Your task to perform on an android device: Add "dell xps" to the cart on ebay Image 0: 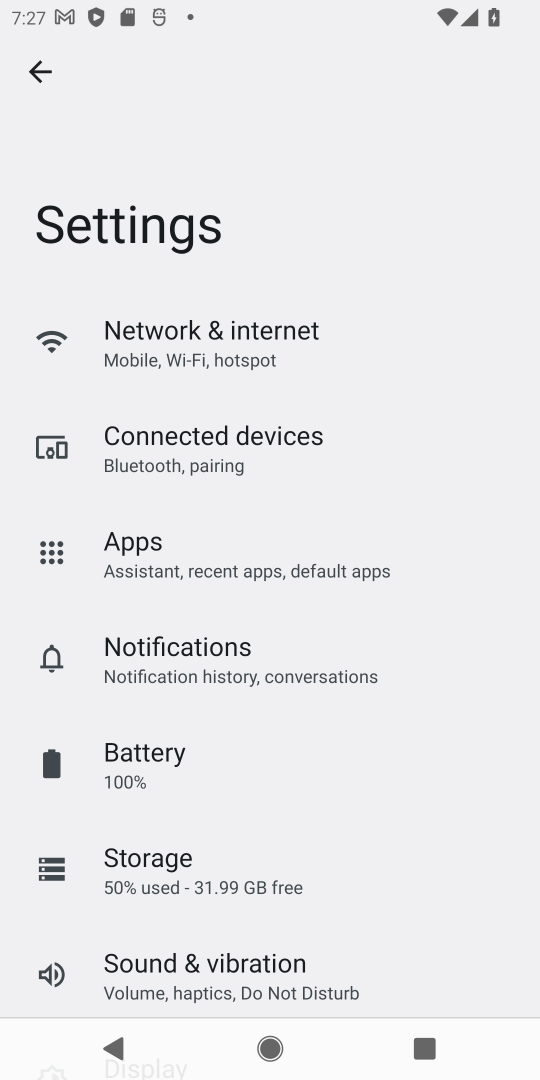
Step 0: press home button
Your task to perform on an android device: Add "dell xps" to the cart on ebay Image 1: 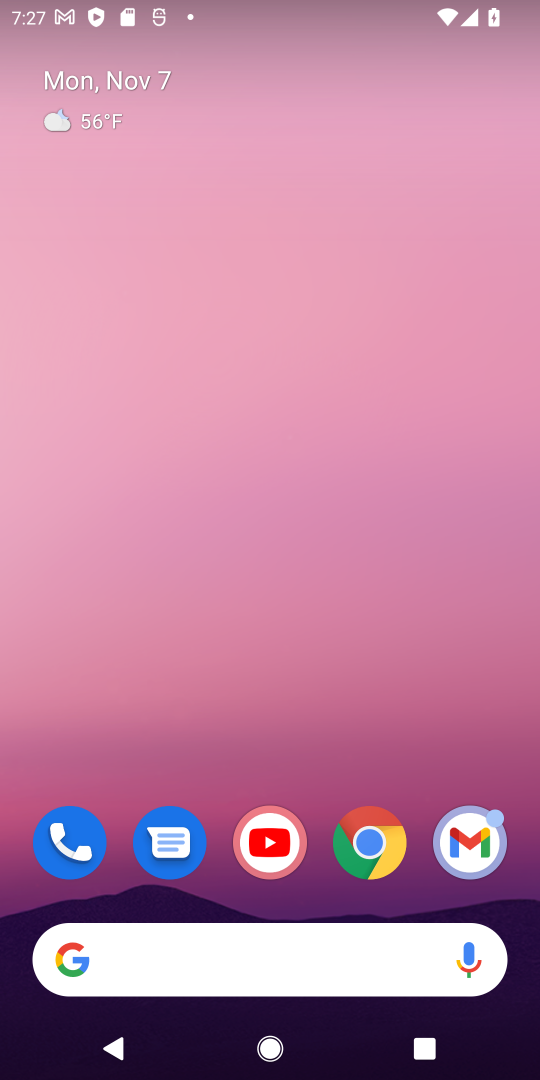
Step 1: click (364, 856)
Your task to perform on an android device: Add "dell xps" to the cart on ebay Image 2: 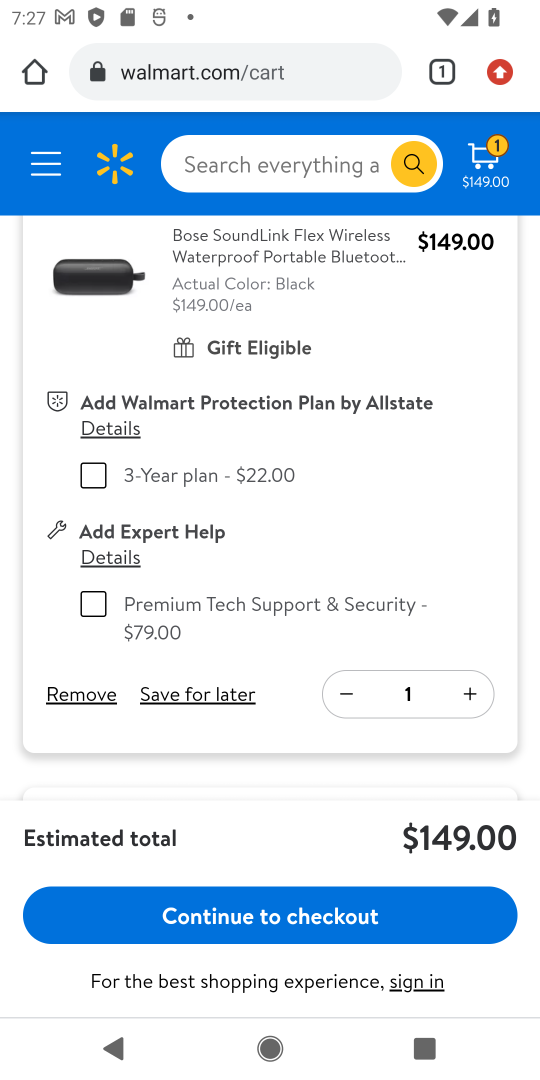
Step 2: click (278, 72)
Your task to perform on an android device: Add "dell xps" to the cart on ebay Image 3: 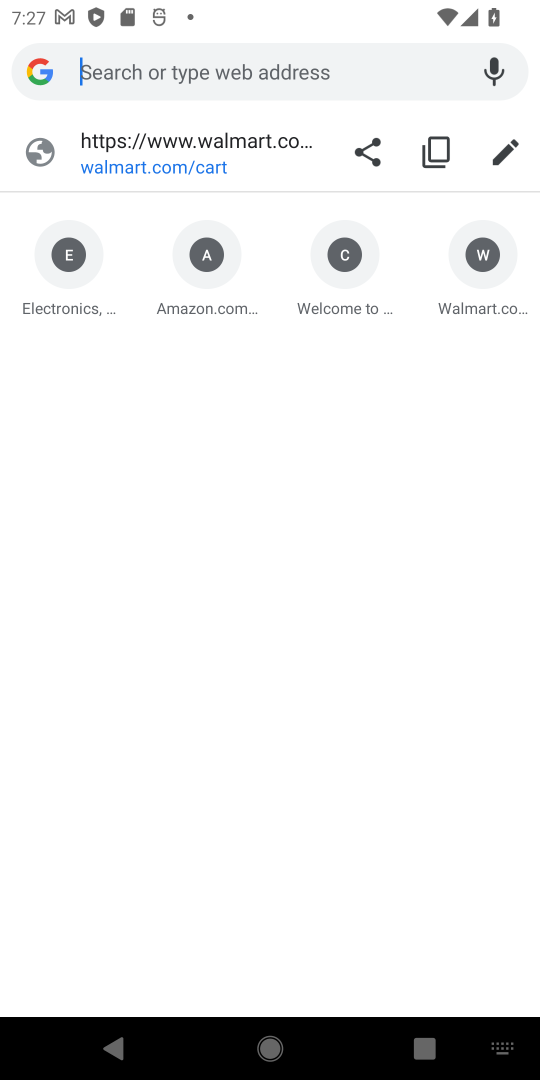
Step 3: click (83, 303)
Your task to perform on an android device: Add "dell xps" to the cart on ebay Image 4: 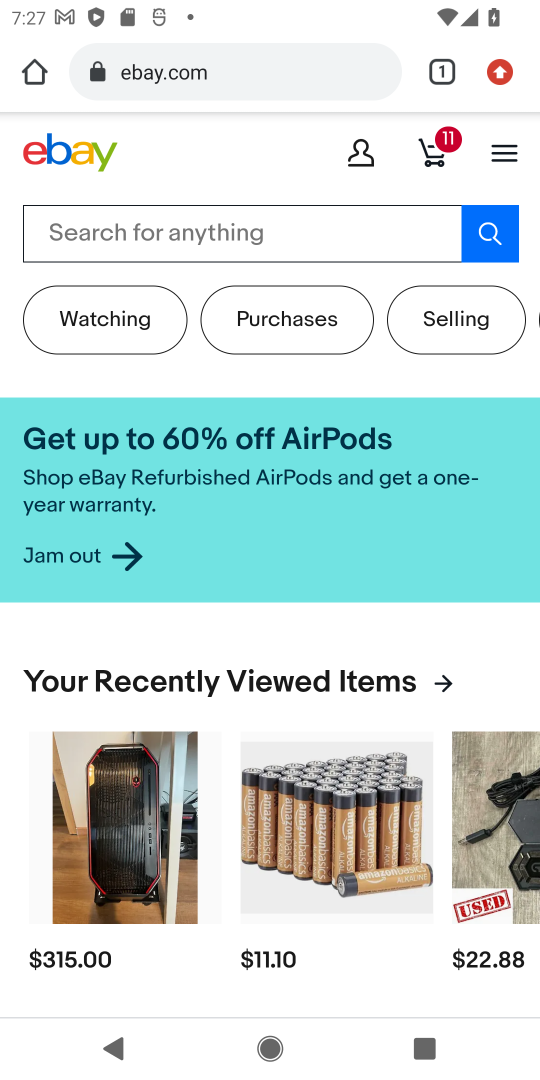
Step 4: click (211, 226)
Your task to perform on an android device: Add "dell xps" to the cart on ebay Image 5: 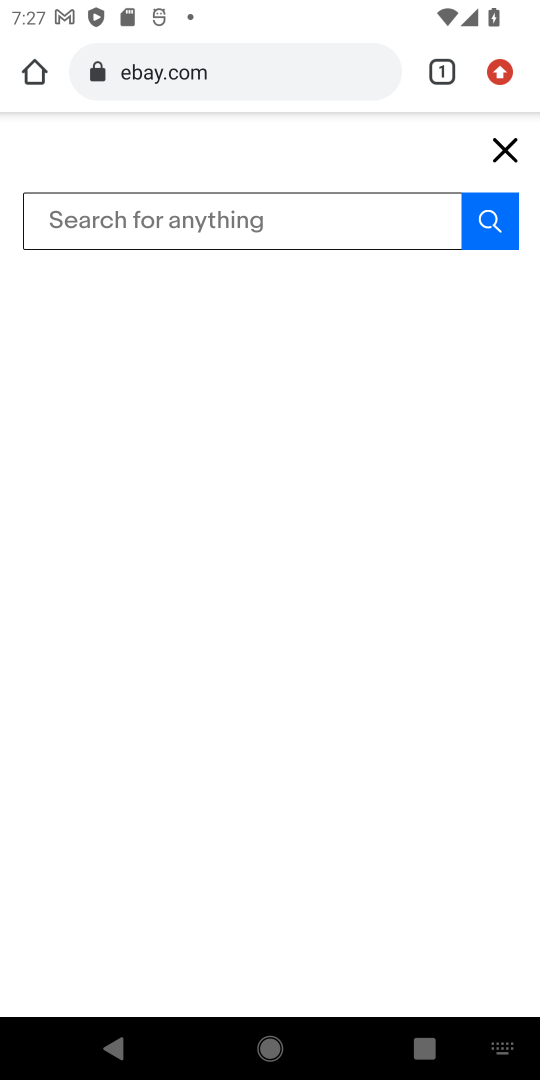
Step 5: type "dell xps"
Your task to perform on an android device: Add "dell xps" to the cart on ebay Image 6: 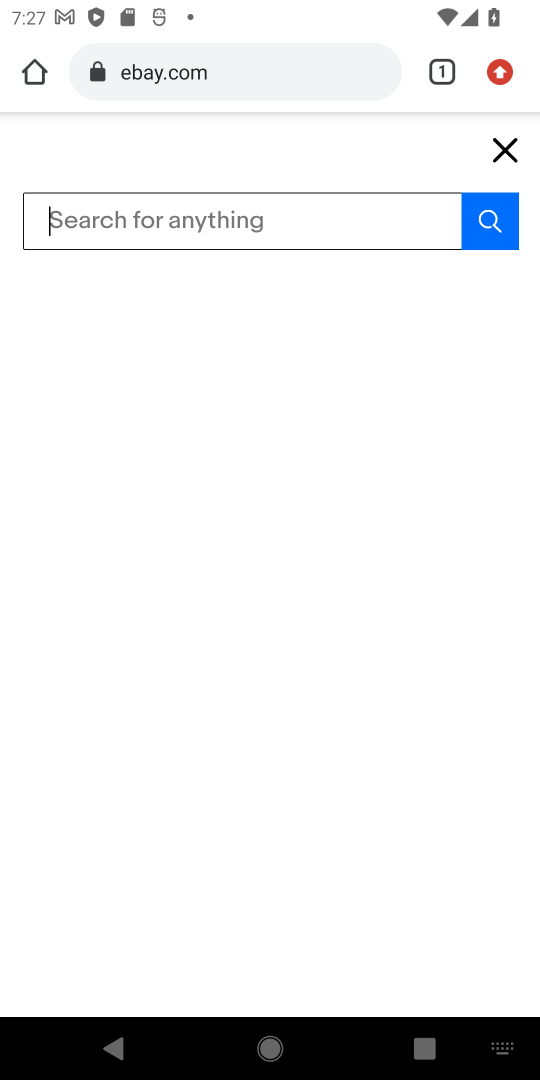
Step 6: press enter
Your task to perform on an android device: Add "dell xps" to the cart on ebay Image 7: 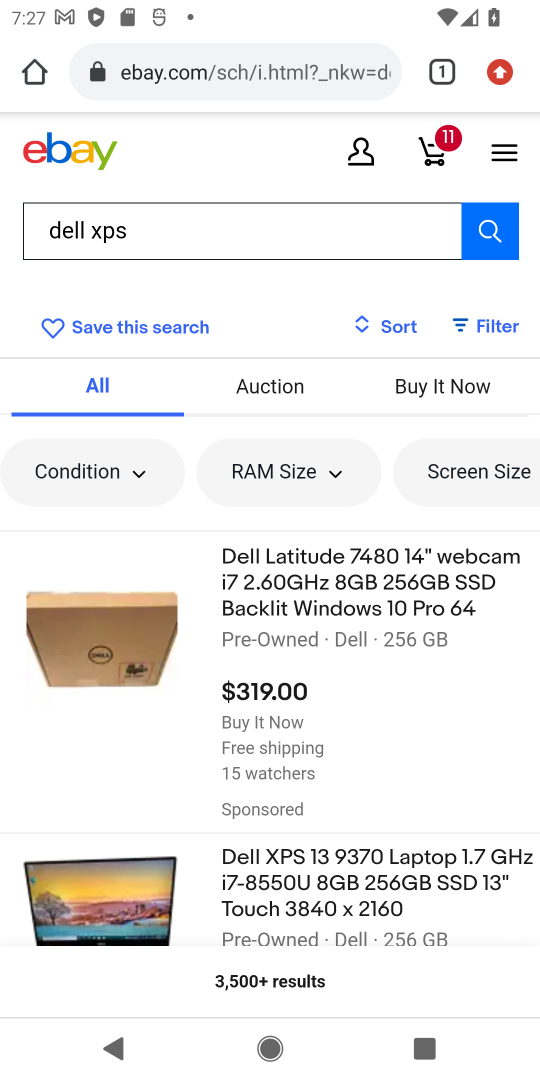
Step 7: click (311, 910)
Your task to perform on an android device: Add "dell xps" to the cart on ebay Image 8: 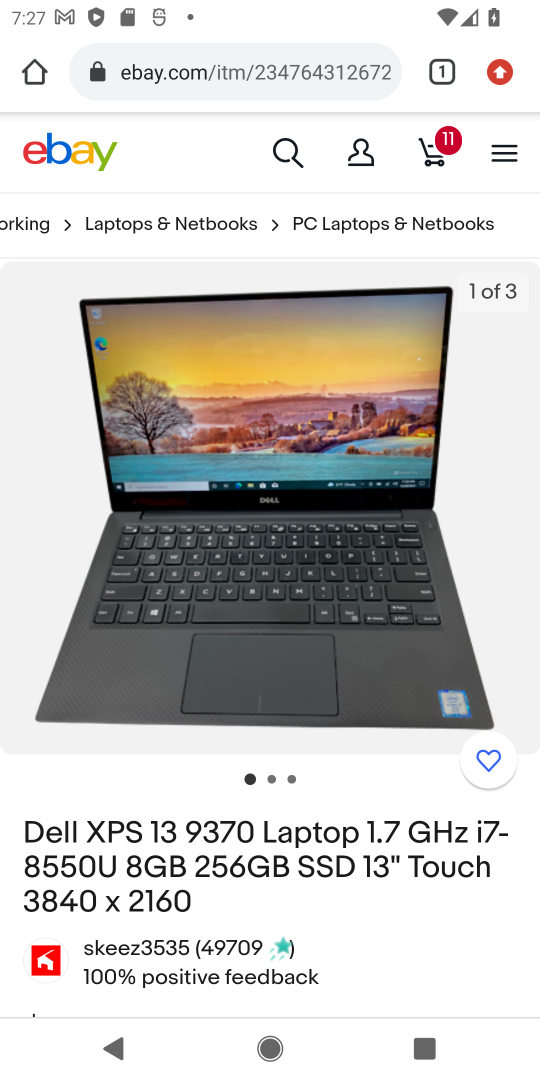
Step 8: drag from (253, 929) to (351, 130)
Your task to perform on an android device: Add "dell xps" to the cart on ebay Image 9: 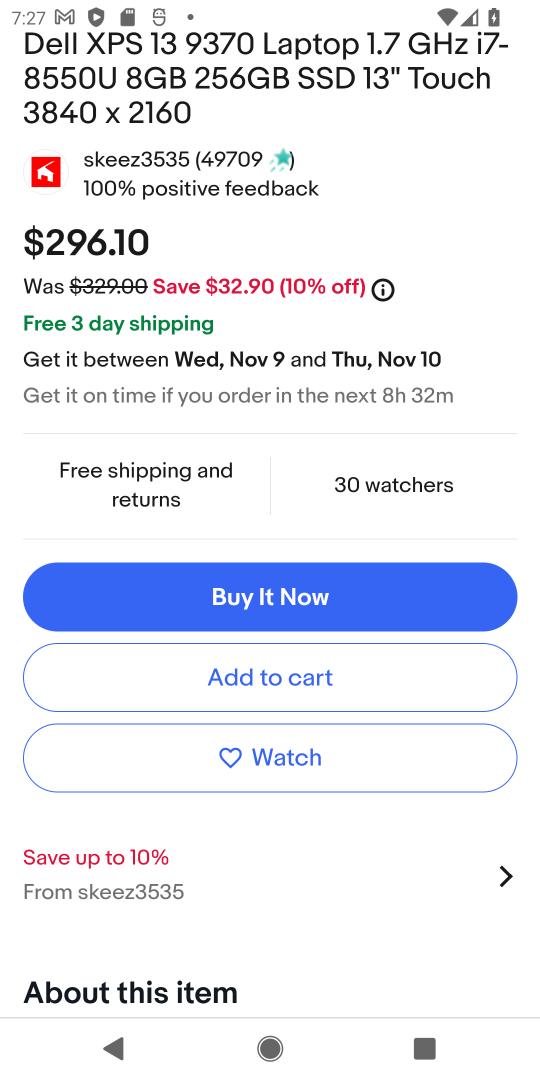
Step 9: click (278, 678)
Your task to perform on an android device: Add "dell xps" to the cart on ebay Image 10: 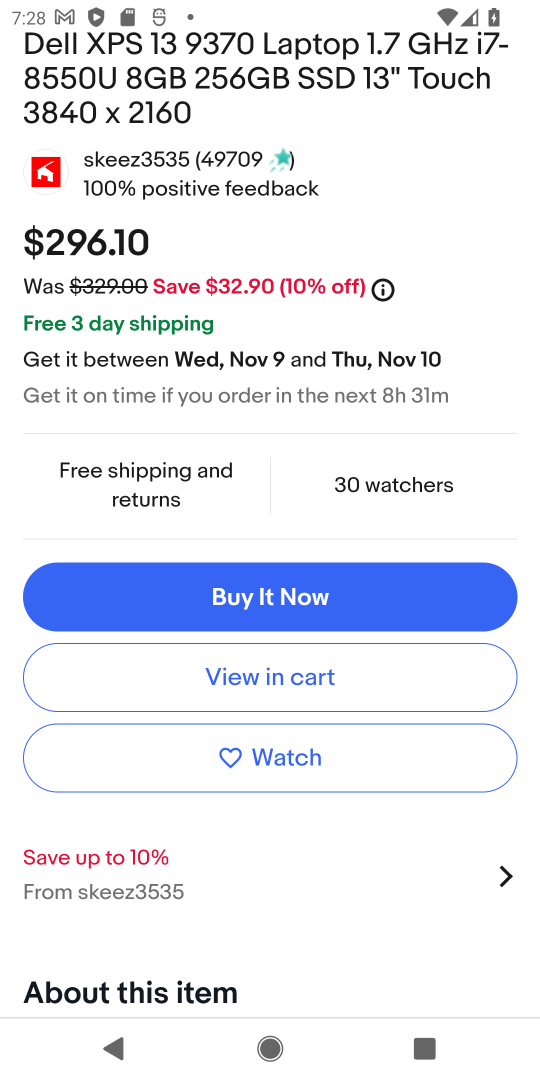
Step 10: task complete